Your task to perform on an android device: Go to display settings Image 0: 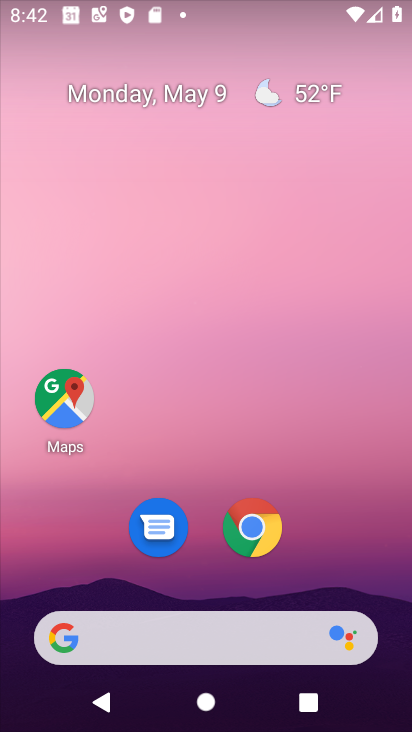
Step 0: drag from (202, 547) to (160, 58)
Your task to perform on an android device: Go to display settings Image 1: 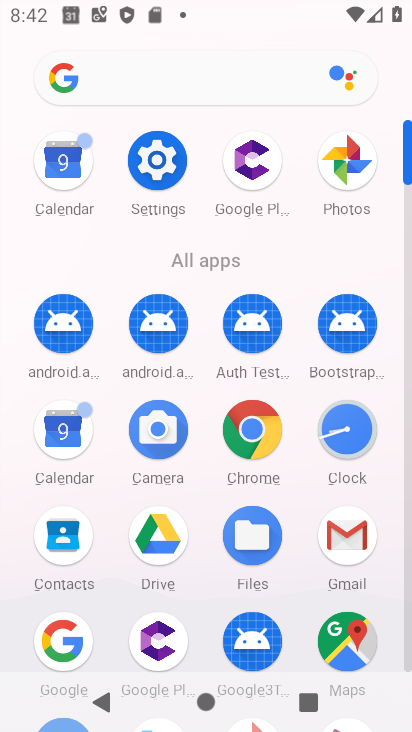
Step 1: click (151, 155)
Your task to perform on an android device: Go to display settings Image 2: 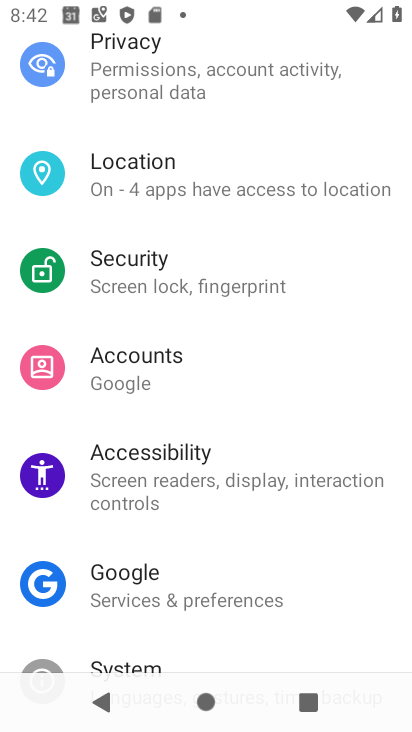
Step 2: drag from (175, 135) to (212, 645)
Your task to perform on an android device: Go to display settings Image 3: 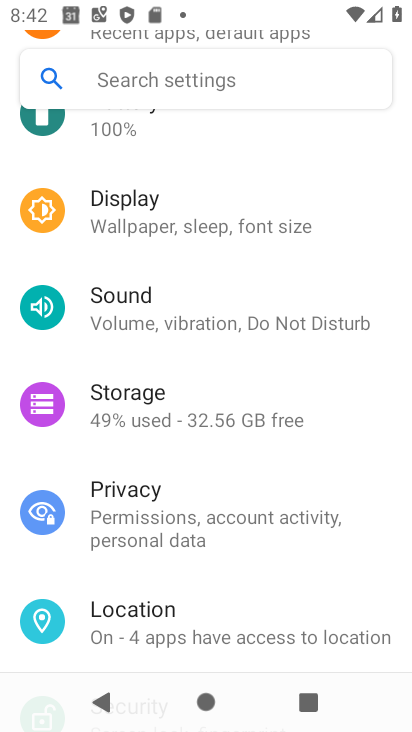
Step 3: click (160, 220)
Your task to perform on an android device: Go to display settings Image 4: 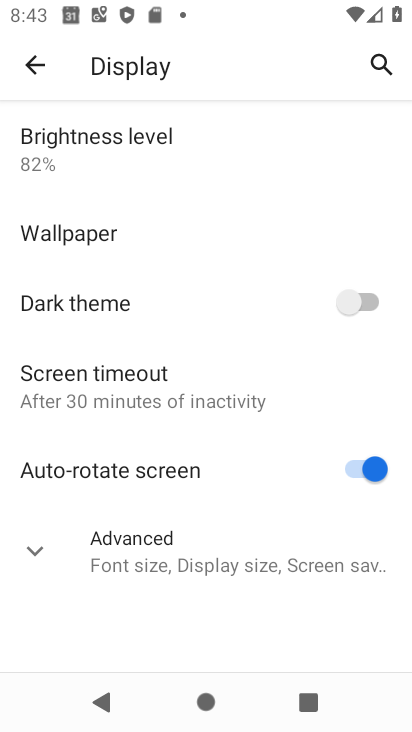
Step 4: task complete